Your task to perform on an android device: turn vacation reply on in the gmail app Image 0: 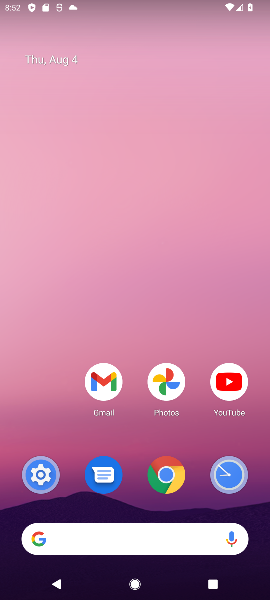
Step 0: drag from (134, 504) to (160, 200)
Your task to perform on an android device: turn vacation reply on in the gmail app Image 1: 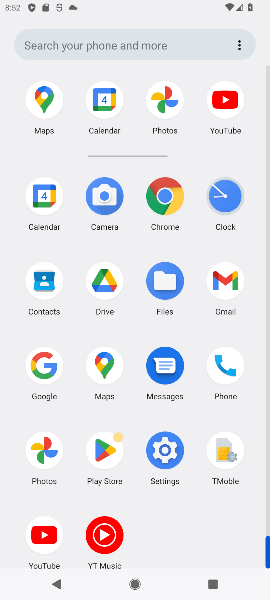
Step 1: click (225, 284)
Your task to perform on an android device: turn vacation reply on in the gmail app Image 2: 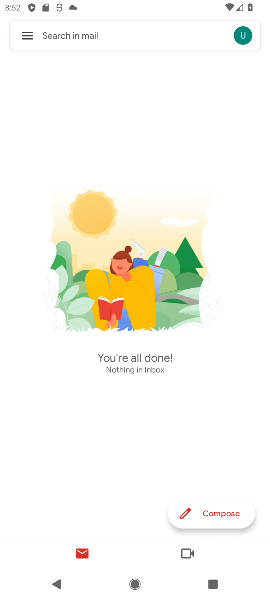
Step 2: click (24, 32)
Your task to perform on an android device: turn vacation reply on in the gmail app Image 3: 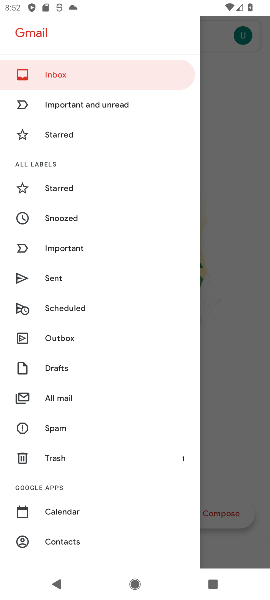
Step 3: drag from (75, 489) to (64, 185)
Your task to perform on an android device: turn vacation reply on in the gmail app Image 4: 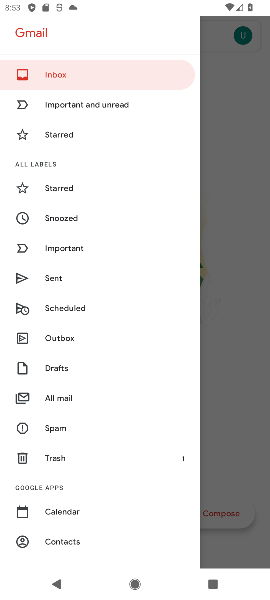
Step 4: drag from (72, 517) to (101, 208)
Your task to perform on an android device: turn vacation reply on in the gmail app Image 5: 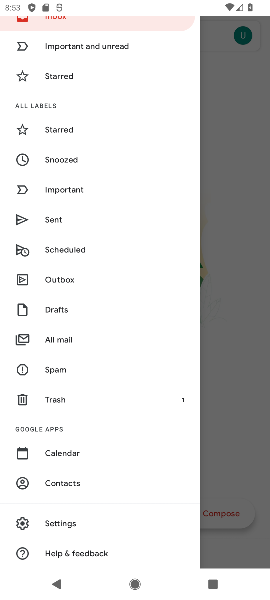
Step 5: click (76, 517)
Your task to perform on an android device: turn vacation reply on in the gmail app Image 6: 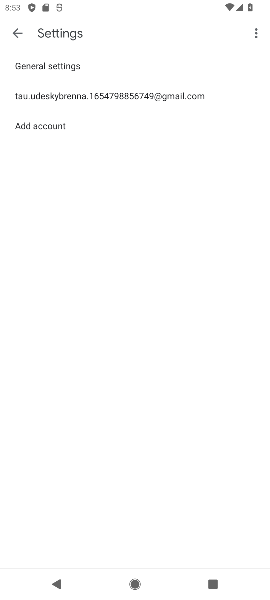
Step 6: click (122, 95)
Your task to perform on an android device: turn vacation reply on in the gmail app Image 7: 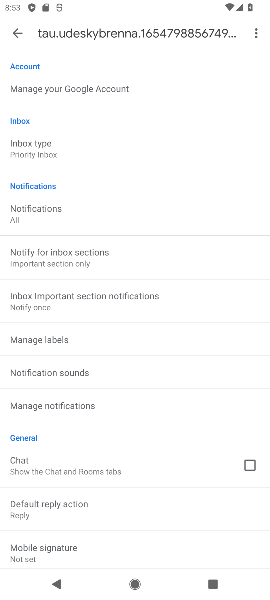
Step 7: drag from (92, 452) to (145, 212)
Your task to perform on an android device: turn vacation reply on in the gmail app Image 8: 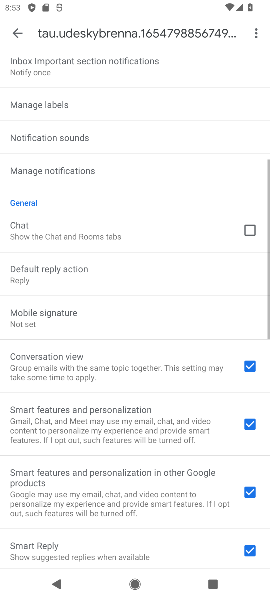
Step 8: drag from (150, 193) to (107, 21)
Your task to perform on an android device: turn vacation reply on in the gmail app Image 9: 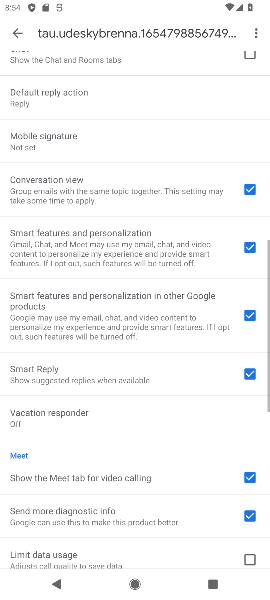
Step 9: drag from (153, 501) to (151, 196)
Your task to perform on an android device: turn vacation reply on in the gmail app Image 10: 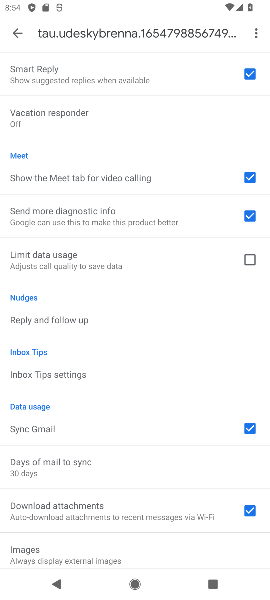
Step 10: drag from (146, 174) to (171, 594)
Your task to perform on an android device: turn vacation reply on in the gmail app Image 11: 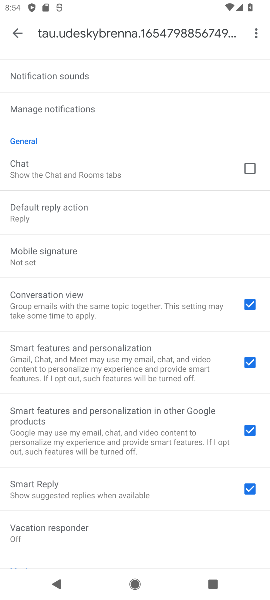
Step 11: drag from (150, 249) to (229, 590)
Your task to perform on an android device: turn vacation reply on in the gmail app Image 12: 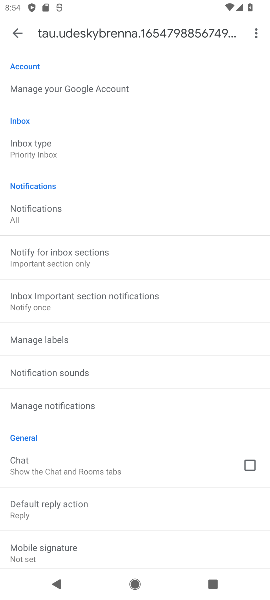
Step 12: drag from (112, 160) to (135, 490)
Your task to perform on an android device: turn vacation reply on in the gmail app Image 13: 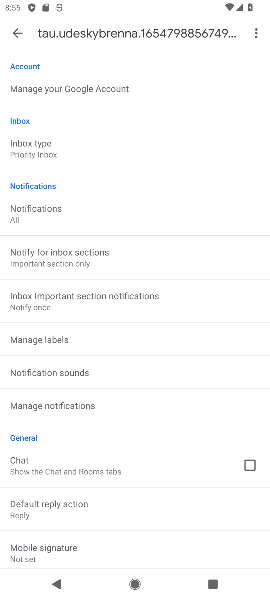
Step 13: drag from (105, 481) to (149, 149)
Your task to perform on an android device: turn vacation reply on in the gmail app Image 14: 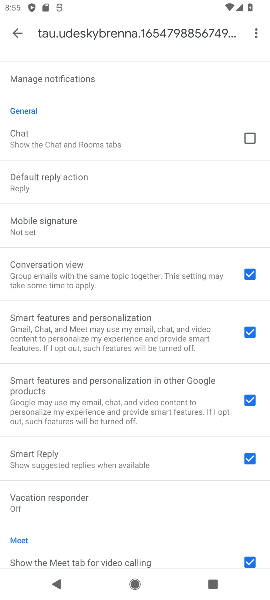
Step 14: click (65, 500)
Your task to perform on an android device: turn vacation reply on in the gmail app Image 15: 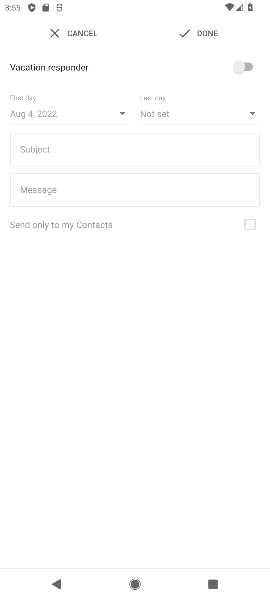
Step 15: click (202, 32)
Your task to perform on an android device: turn vacation reply on in the gmail app Image 16: 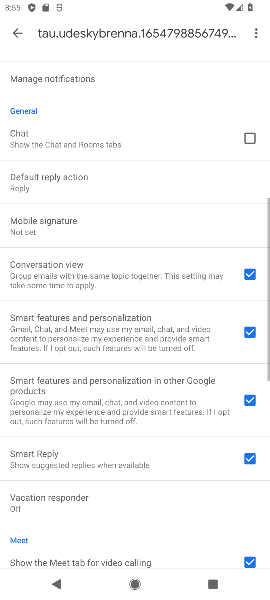
Step 16: task complete